Your task to perform on an android device: Open the calendar app, open the side menu, and click the "Day" option Image 0: 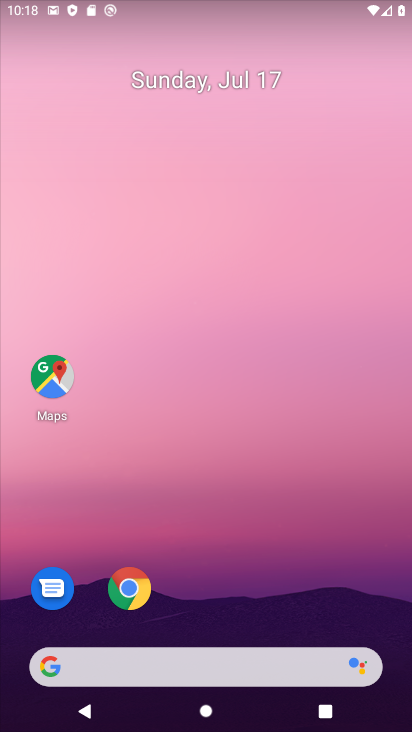
Step 0: press home button
Your task to perform on an android device: Open the calendar app, open the side menu, and click the "Day" option Image 1: 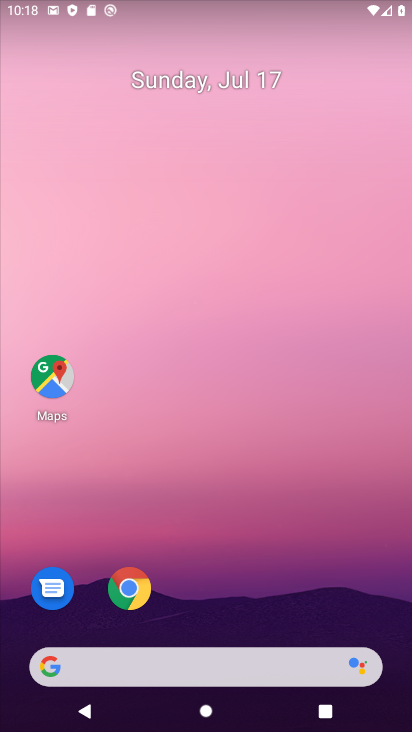
Step 1: drag from (347, 562) to (316, 250)
Your task to perform on an android device: Open the calendar app, open the side menu, and click the "Day" option Image 2: 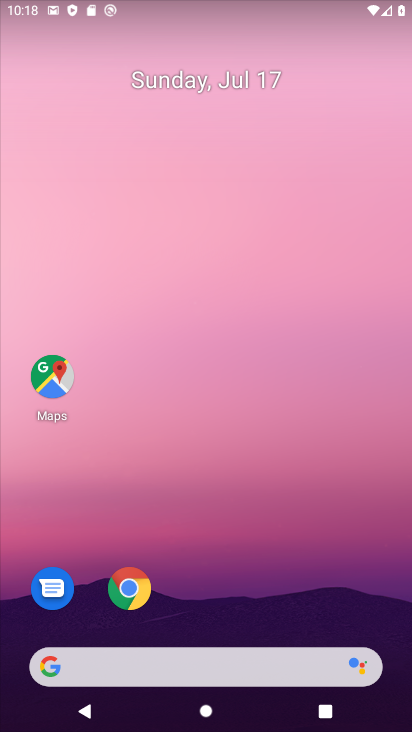
Step 2: drag from (235, 539) to (263, 10)
Your task to perform on an android device: Open the calendar app, open the side menu, and click the "Day" option Image 3: 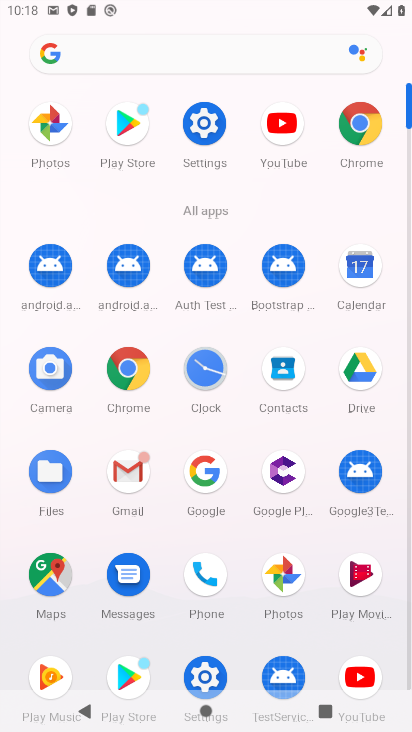
Step 3: click (357, 283)
Your task to perform on an android device: Open the calendar app, open the side menu, and click the "Day" option Image 4: 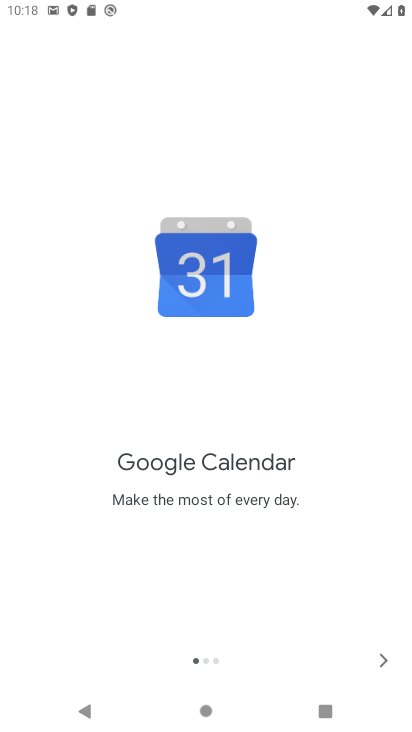
Step 4: click (386, 662)
Your task to perform on an android device: Open the calendar app, open the side menu, and click the "Day" option Image 5: 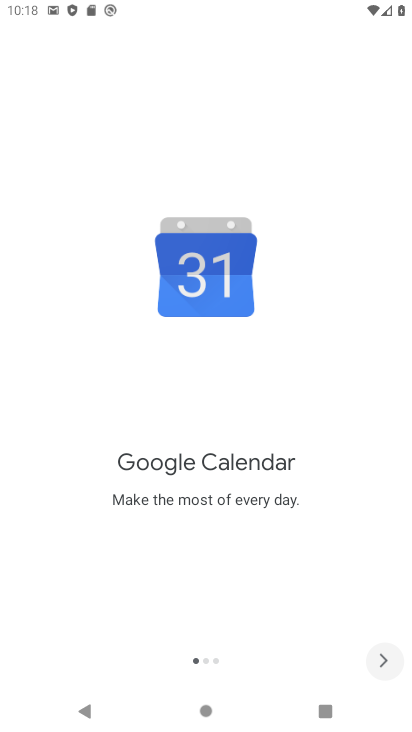
Step 5: click (386, 662)
Your task to perform on an android device: Open the calendar app, open the side menu, and click the "Day" option Image 6: 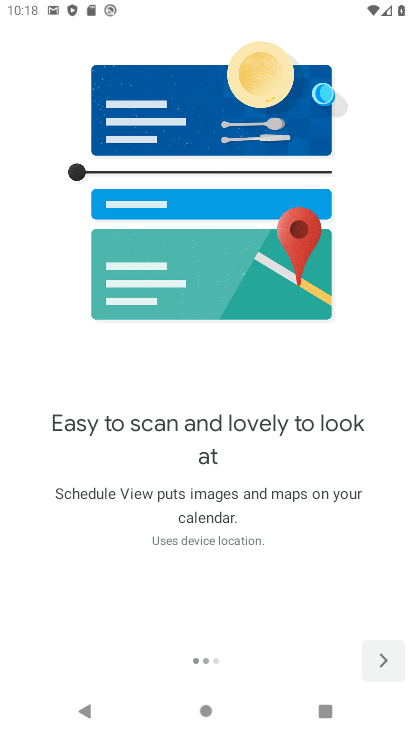
Step 6: click (386, 662)
Your task to perform on an android device: Open the calendar app, open the side menu, and click the "Day" option Image 7: 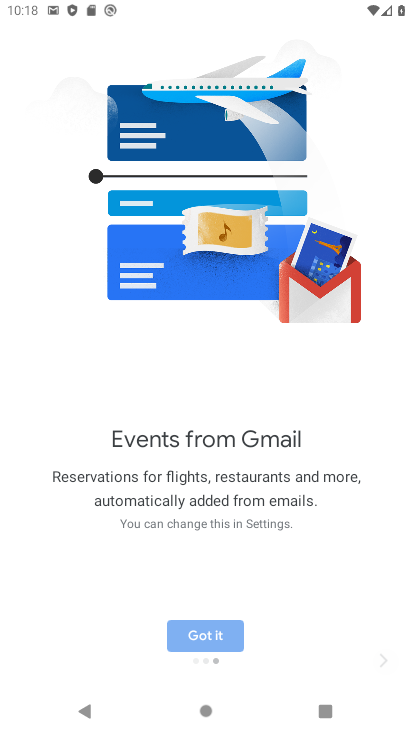
Step 7: click (386, 662)
Your task to perform on an android device: Open the calendar app, open the side menu, and click the "Day" option Image 8: 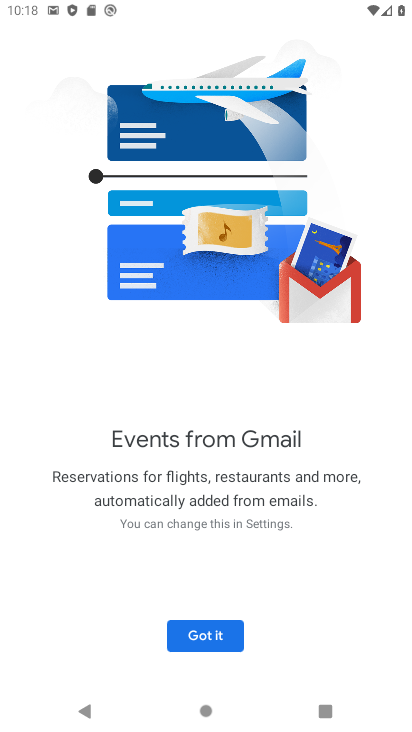
Step 8: click (386, 662)
Your task to perform on an android device: Open the calendar app, open the side menu, and click the "Day" option Image 9: 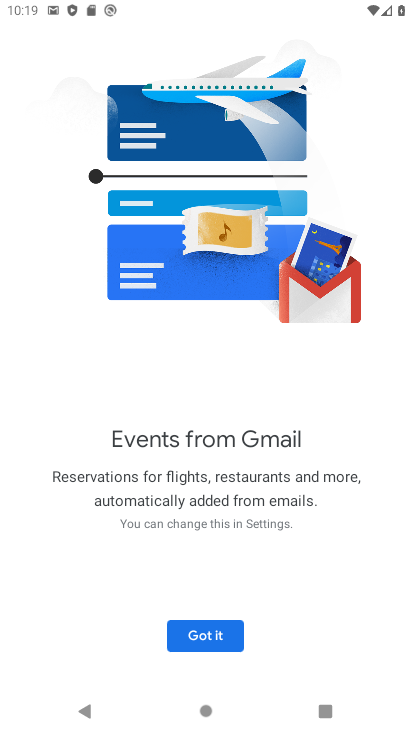
Step 9: click (243, 627)
Your task to perform on an android device: Open the calendar app, open the side menu, and click the "Day" option Image 10: 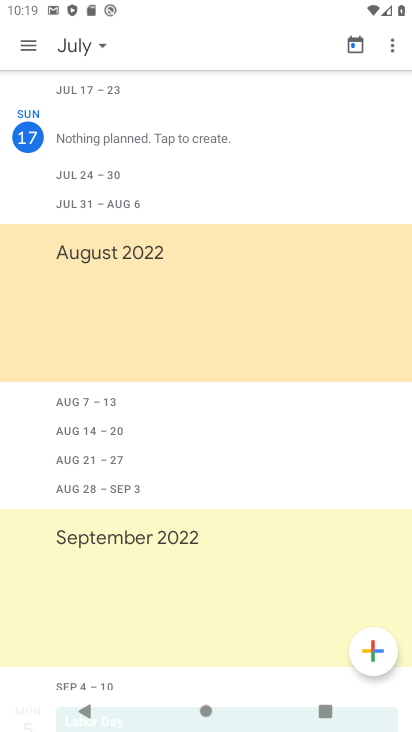
Step 10: click (29, 40)
Your task to perform on an android device: Open the calendar app, open the side menu, and click the "Day" option Image 11: 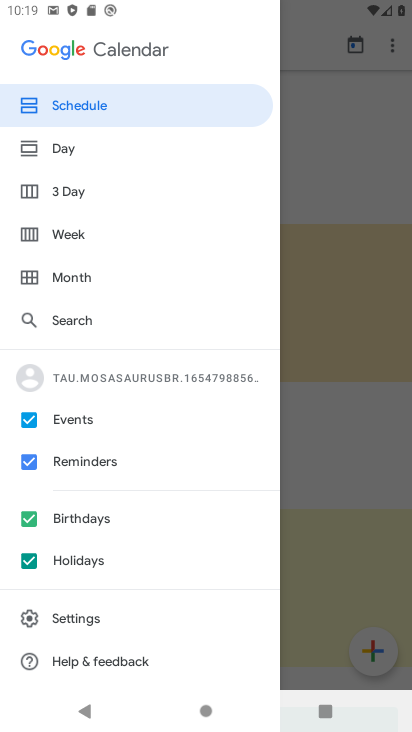
Step 11: click (32, 155)
Your task to perform on an android device: Open the calendar app, open the side menu, and click the "Day" option Image 12: 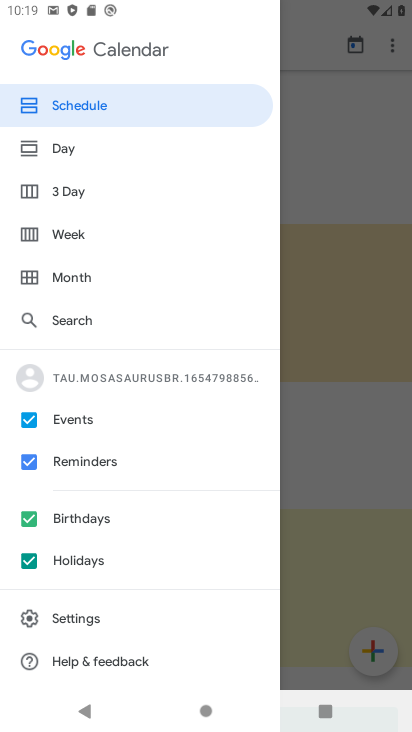
Step 12: click (66, 139)
Your task to perform on an android device: Open the calendar app, open the side menu, and click the "Day" option Image 13: 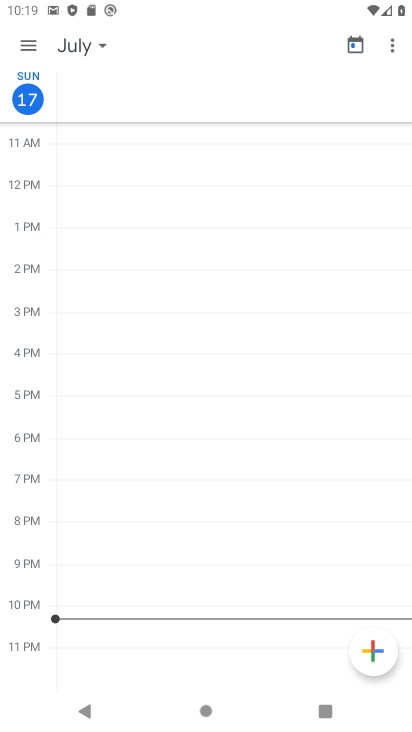
Step 13: task complete